Your task to perform on an android device: turn on sleep mode Image 0: 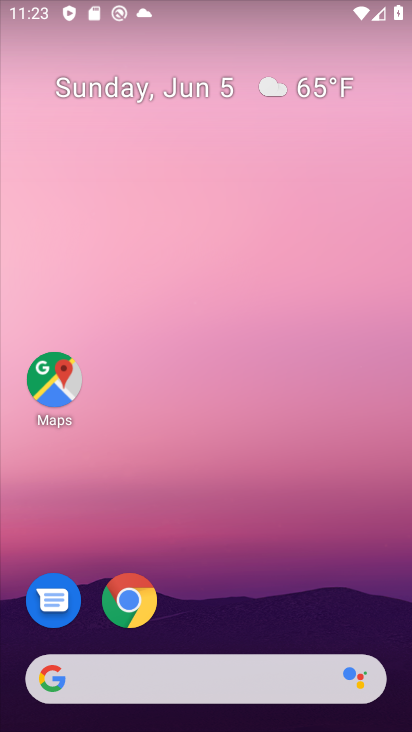
Step 0: drag from (250, 720) to (187, 228)
Your task to perform on an android device: turn on sleep mode Image 1: 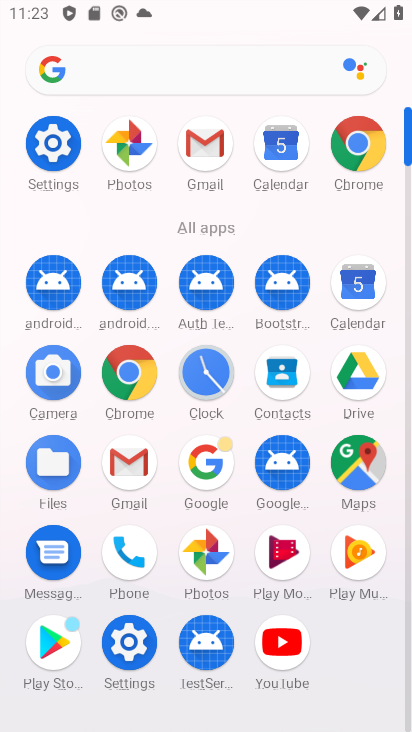
Step 1: click (57, 148)
Your task to perform on an android device: turn on sleep mode Image 2: 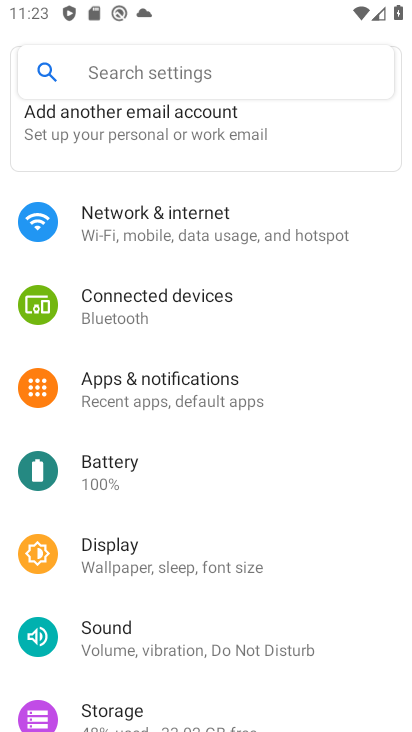
Step 2: click (127, 562)
Your task to perform on an android device: turn on sleep mode Image 3: 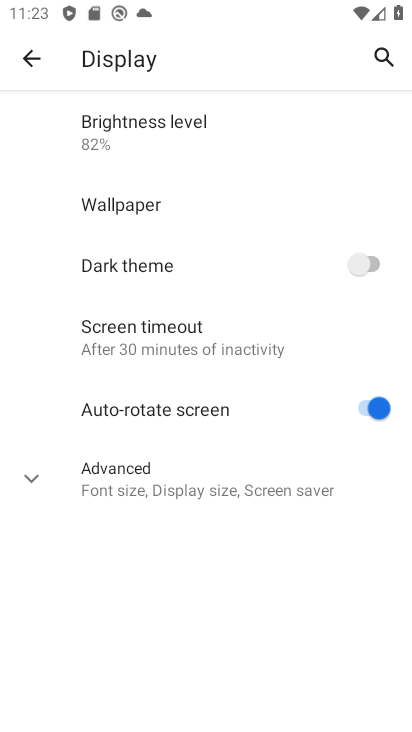
Step 3: click (33, 66)
Your task to perform on an android device: turn on sleep mode Image 4: 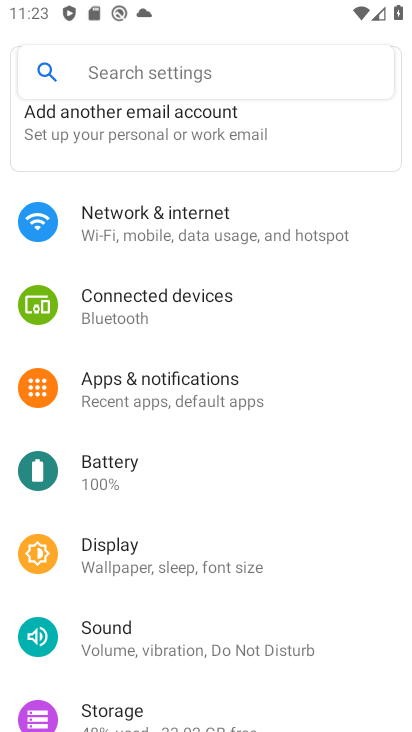
Step 4: click (145, 557)
Your task to perform on an android device: turn on sleep mode Image 5: 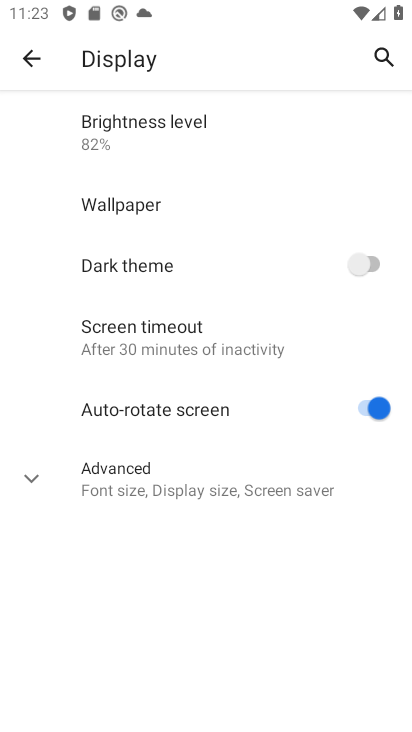
Step 5: click (153, 339)
Your task to perform on an android device: turn on sleep mode Image 6: 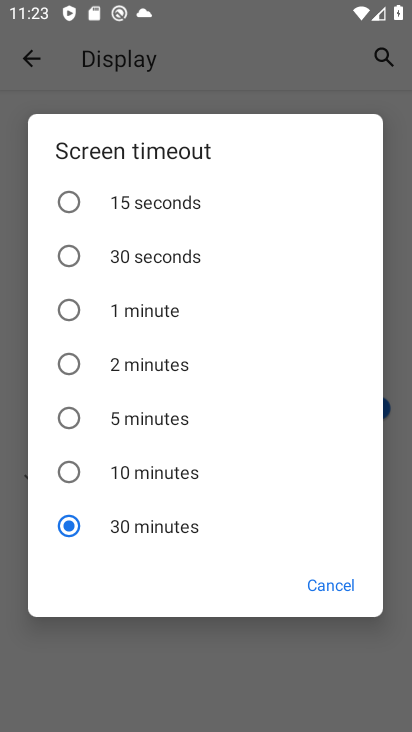
Step 6: click (76, 466)
Your task to perform on an android device: turn on sleep mode Image 7: 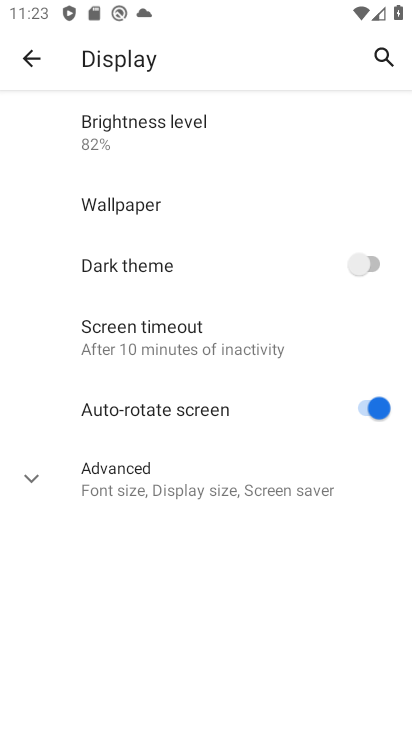
Step 7: task complete